Your task to perform on an android device: star an email in the gmail app Image 0: 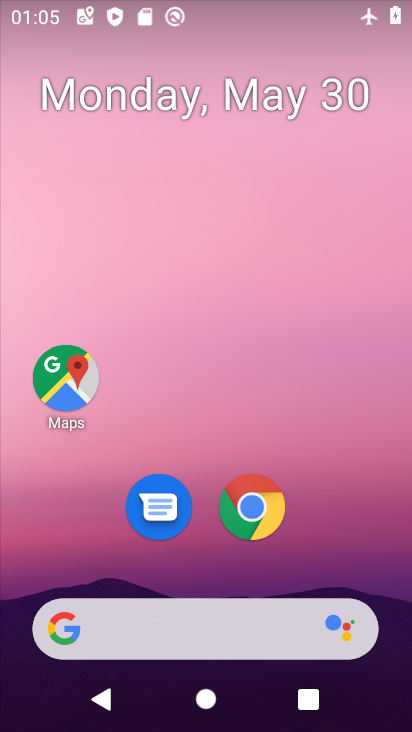
Step 0: drag from (310, 544) to (294, 211)
Your task to perform on an android device: star an email in the gmail app Image 1: 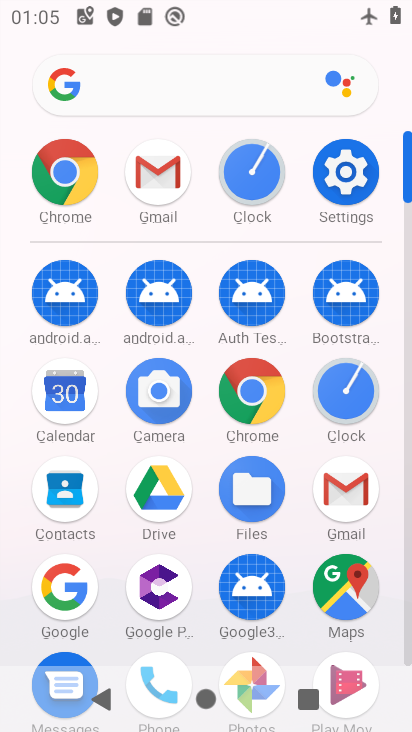
Step 1: click (350, 475)
Your task to perform on an android device: star an email in the gmail app Image 2: 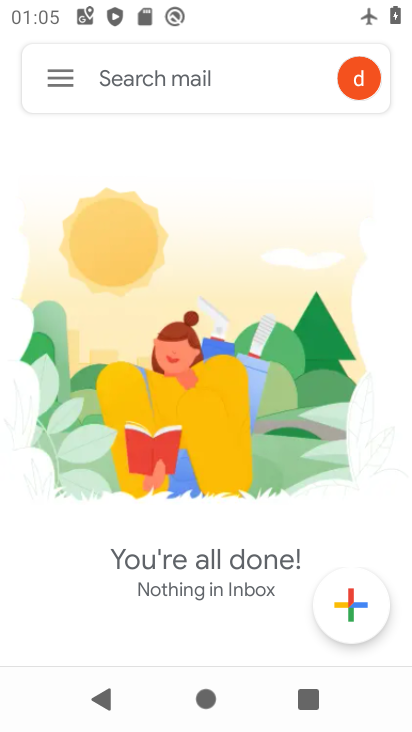
Step 2: click (68, 78)
Your task to perform on an android device: star an email in the gmail app Image 3: 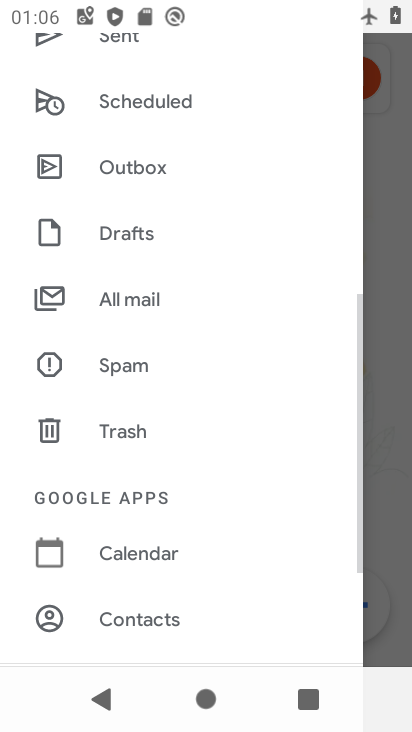
Step 3: drag from (162, 100) to (158, 624)
Your task to perform on an android device: star an email in the gmail app Image 4: 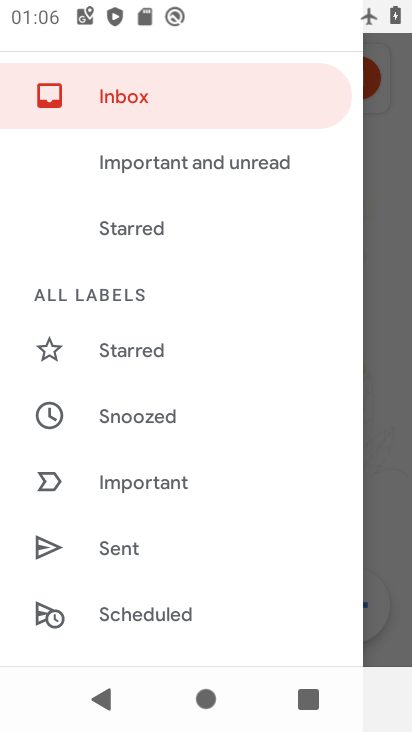
Step 4: click (161, 246)
Your task to perform on an android device: star an email in the gmail app Image 5: 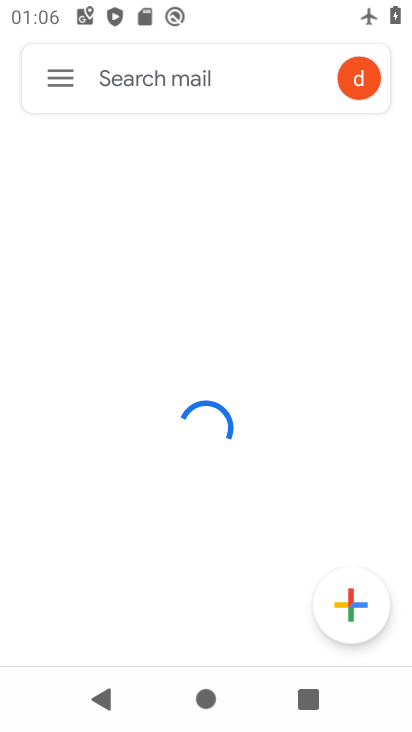
Step 5: task complete